Your task to perform on an android device: turn vacation reply on in the gmail app Image 0: 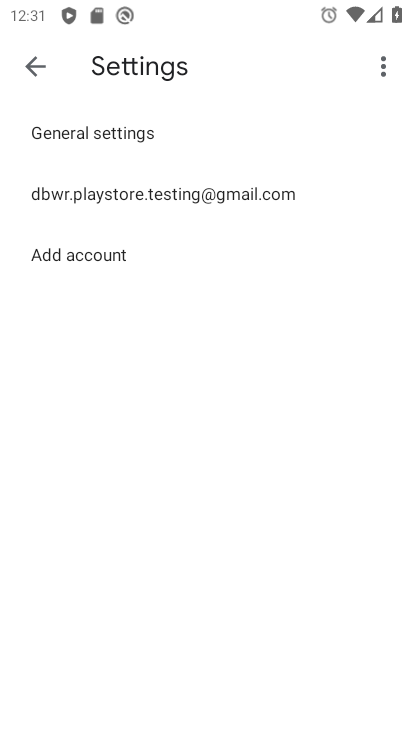
Step 0: click (201, 190)
Your task to perform on an android device: turn vacation reply on in the gmail app Image 1: 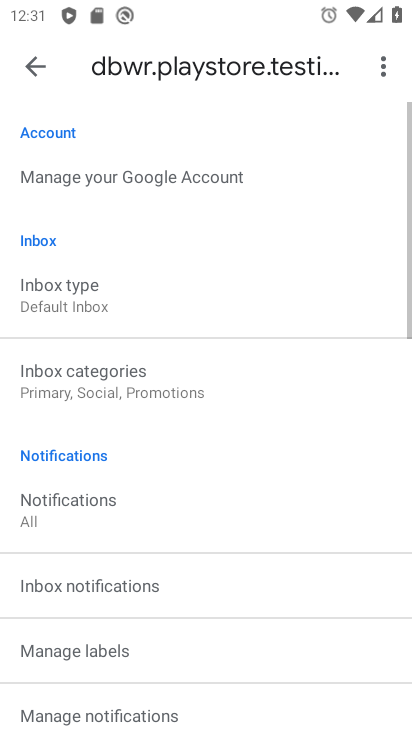
Step 1: drag from (220, 432) to (263, 151)
Your task to perform on an android device: turn vacation reply on in the gmail app Image 2: 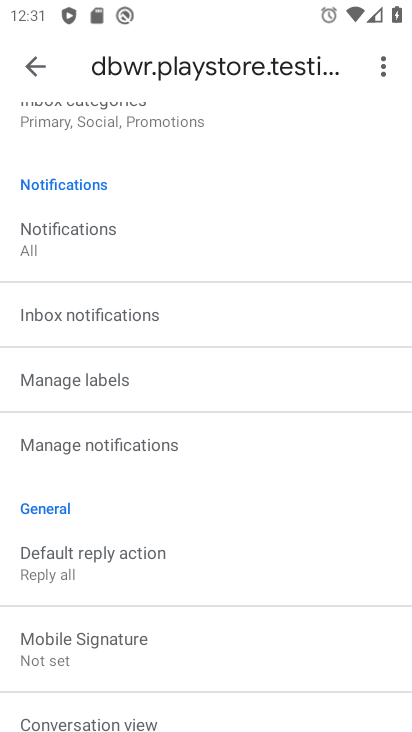
Step 2: drag from (224, 463) to (269, 91)
Your task to perform on an android device: turn vacation reply on in the gmail app Image 3: 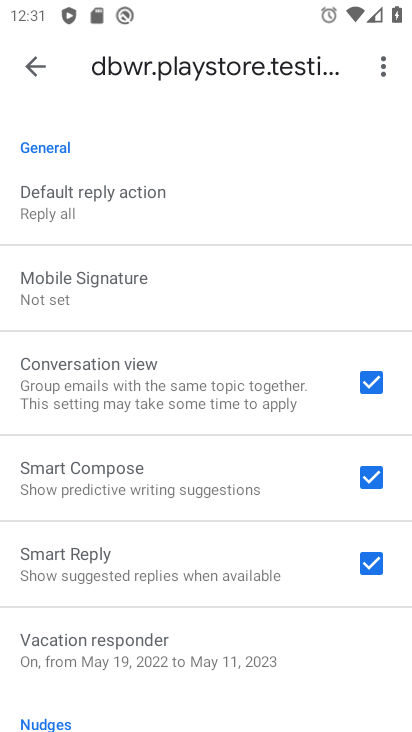
Step 3: drag from (232, 452) to (238, 178)
Your task to perform on an android device: turn vacation reply on in the gmail app Image 4: 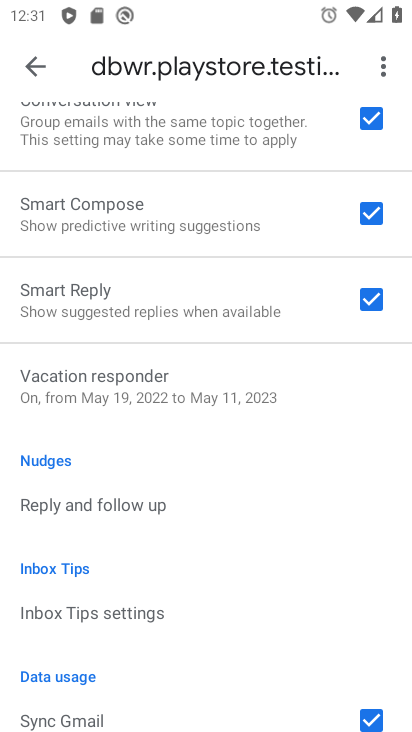
Step 4: click (183, 370)
Your task to perform on an android device: turn vacation reply on in the gmail app Image 5: 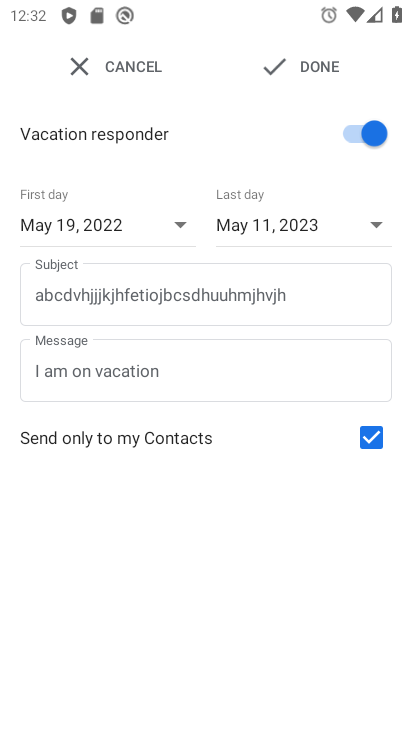
Step 5: task complete